Your task to perform on an android device: install app "Speedtest by Ookla" Image 0: 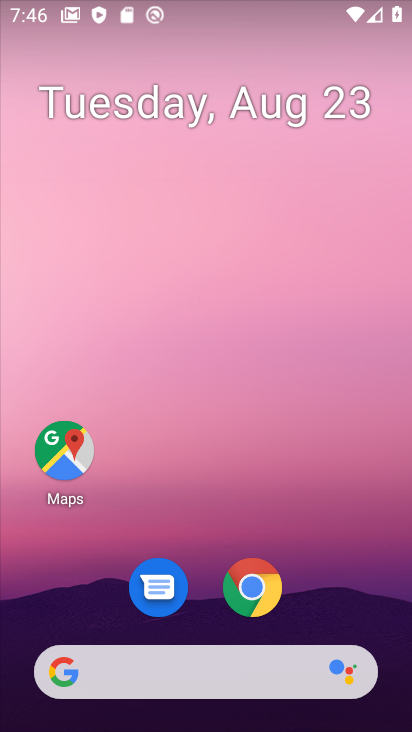
Step 0: drag from (199, 415) to (227, 143)
Your task to perform on an android device: install app "Speedtest by Ookla" Image 1: 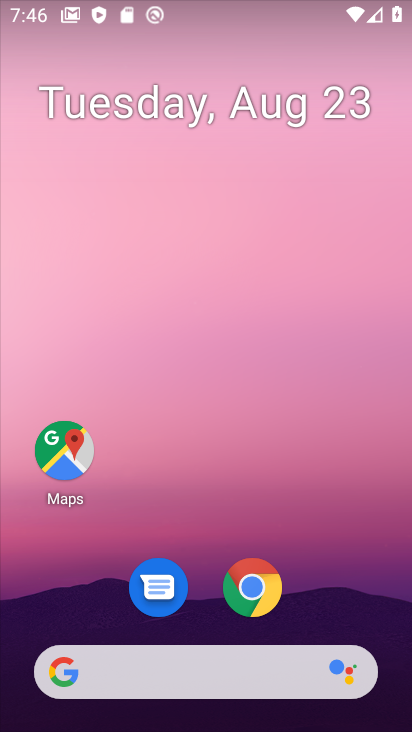
Step 1: drag from (202, 621) to (249, 27)
Your task to perform on an android device: install app "Speedtest by Ookla" Image 2: 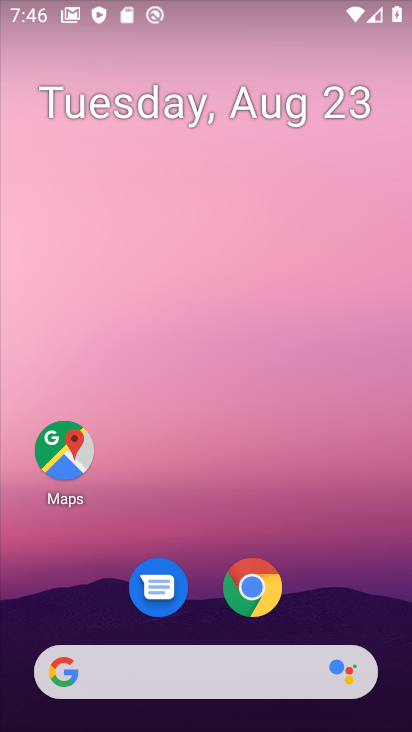
Step 2: drag from (201, 616) to (228, 19)
Your task to perform on an android device: install app "Speedtest by Ookla" Image 3: 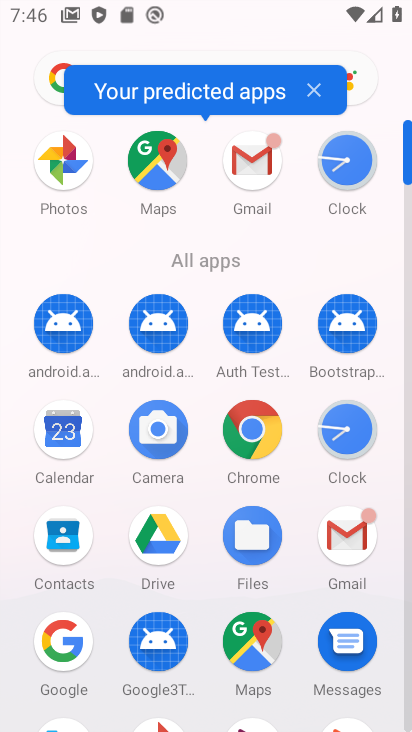
Step 3: click (408, 708)
Your task to perform on an android device: install app "Speedtest by Ookla" Image 4: 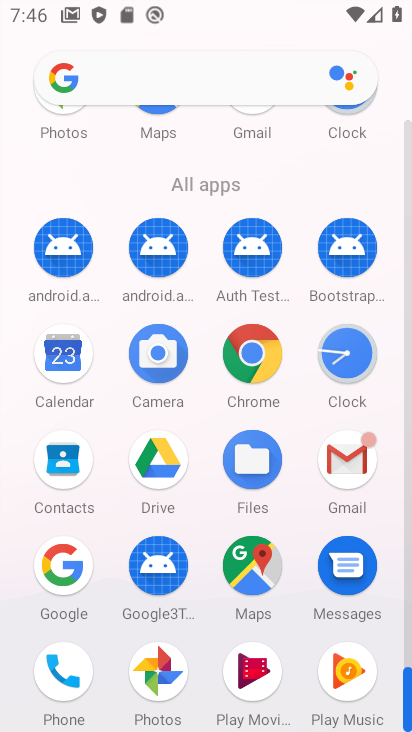
Step 4: drag from (198, 601) to (201, 341)
Your task to perform on an android device: install app "Speedtest by Ookla" Image 5: 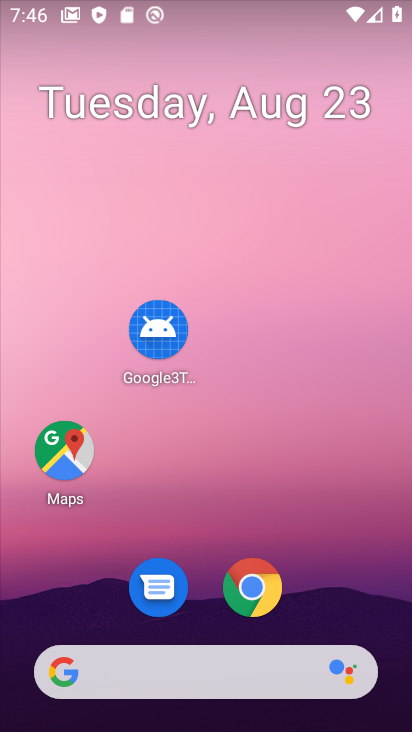
Step 5: drag from (310, 586) to (343, 170)
Your task to perform on an android device: install app "Speedtest by Ookla" Image 6: 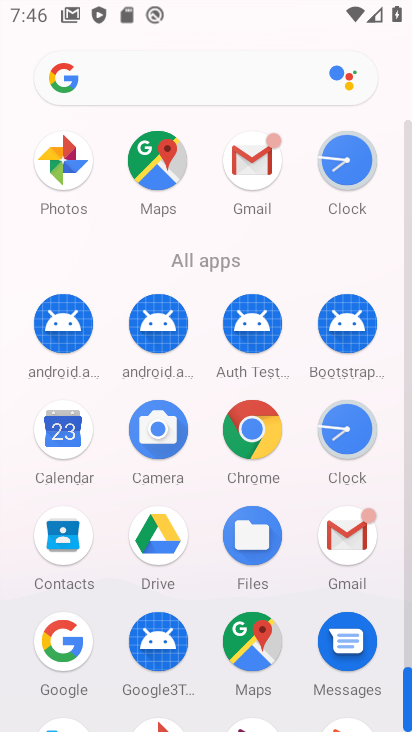
Step 6: click (408, 699)
Your task to perform on an android device: install app "Speedtest by Ookla" Image 7: 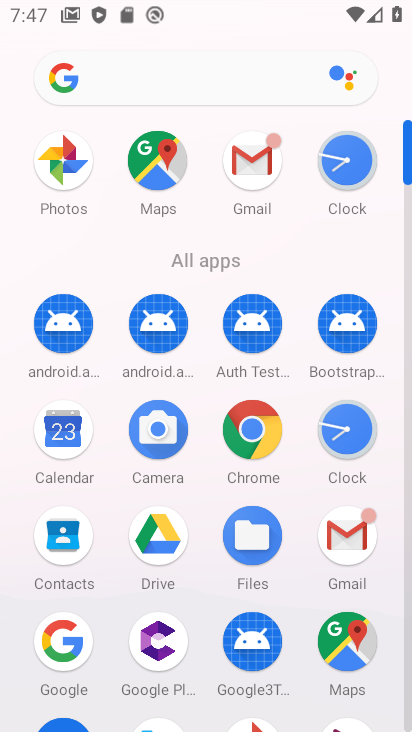
Step 7: drag from (409, 169) to (409, 604)
Your task to perform on an android device: install app "Speedtest by Ookla" Image 8: 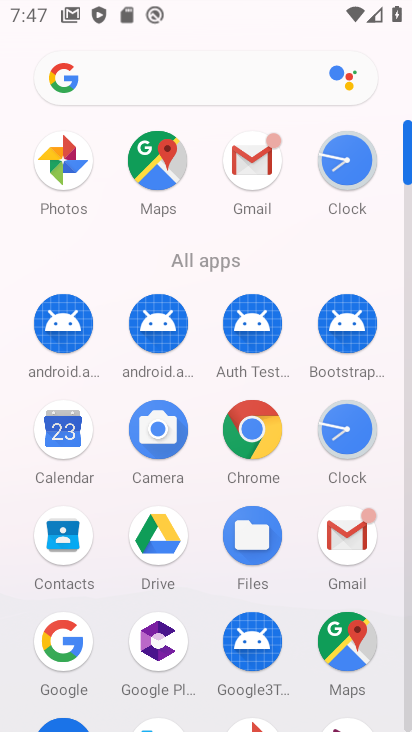
Step 8: drag from (406, 174) to (396, 559)
Your task to perform on an android device: install app "Speedtest by Ookla" Image 9: 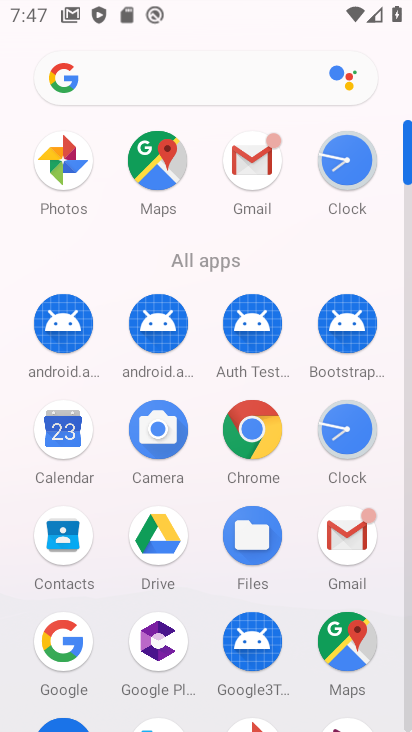
Step 9: drag from (405, 176) to (405, 484)
Your task to perform on an android device: install app "Speedtest by Ookla" Image 10: 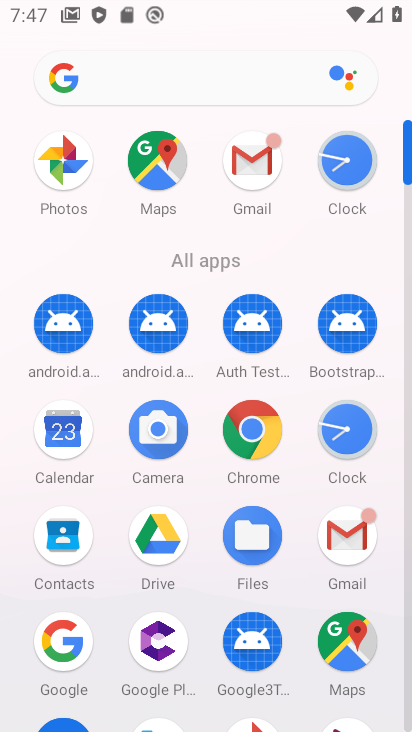
Step 10: click (405, 484)
Your task to perform on an android device: install app "Speedtest by Ookla" Image 11: 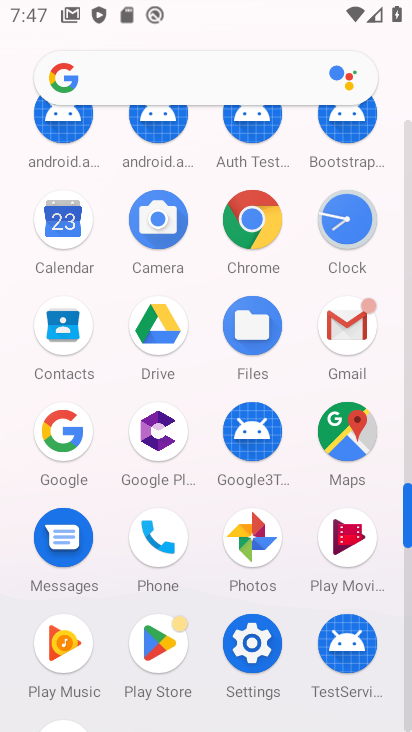
Step 11: click (407, 674)
Your task to perform on an android device: install app "Speedtest by Ookla" Image 12: 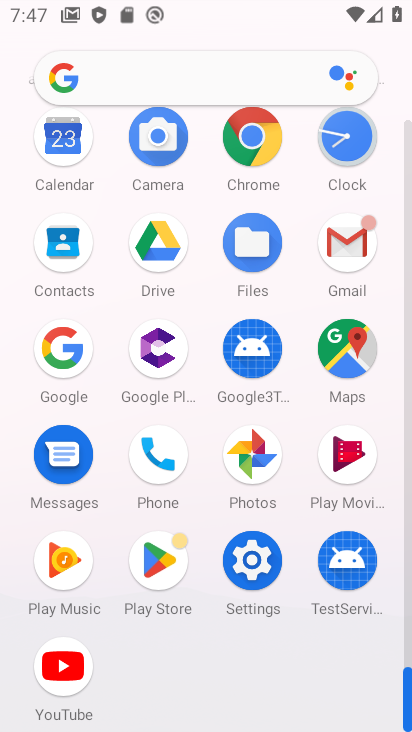
Step 12: click (161, 653)
Your task to perform on an android device: install app "Speedtest by Ookla" Image 13: 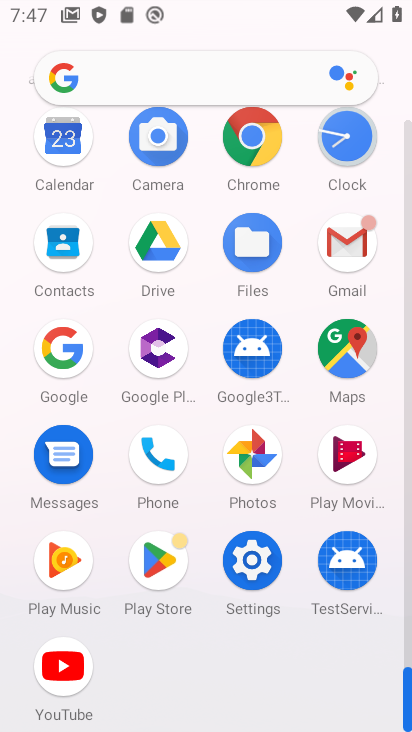
Step 13: click (158, 578)
Your task to perform on an android device: install app "Speedtest by Ookla" Image 14: 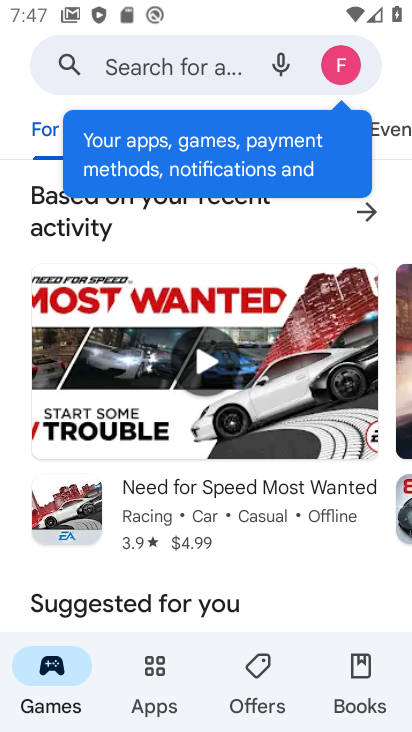
Step 14: click (244, 60)
Your task to perform on an android device: install app "Speedtest by Ookla" Image 15: 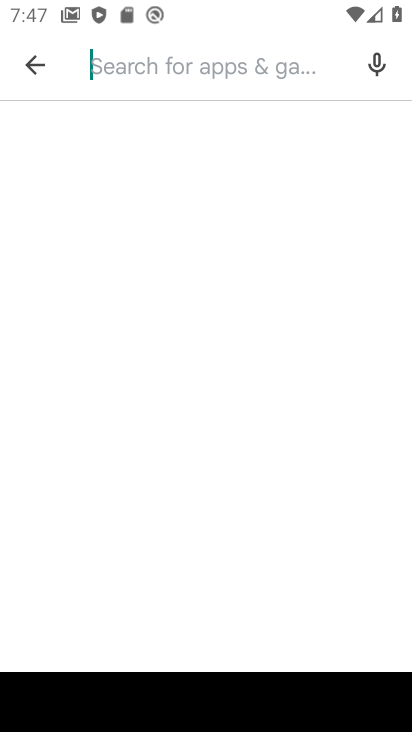
Step 15: type "speed test"
Your task to perform on an android device: install app "Speedtest by Ookla" Image 16: 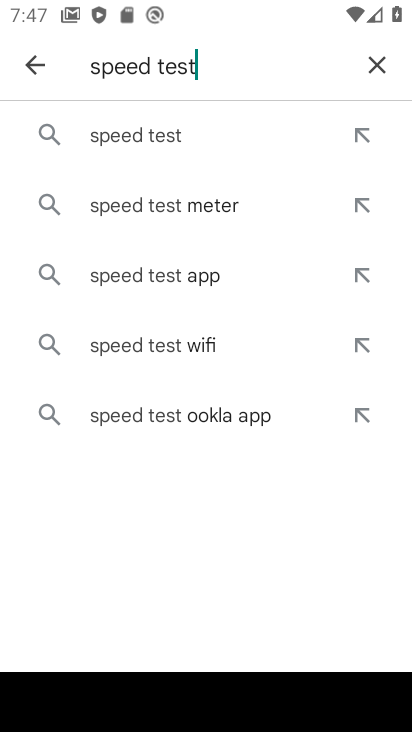
Step 16: click (245, 427)
Your task to perform on an android device: install app "Speedtest by Ookla" Image 17: 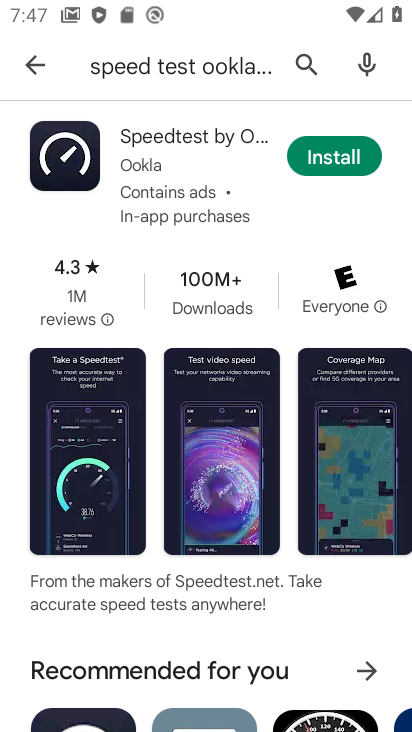
Step 17: click (308, 143)
Your task to perform on an android device: install app "Speedtest by Ookla" Image 18: 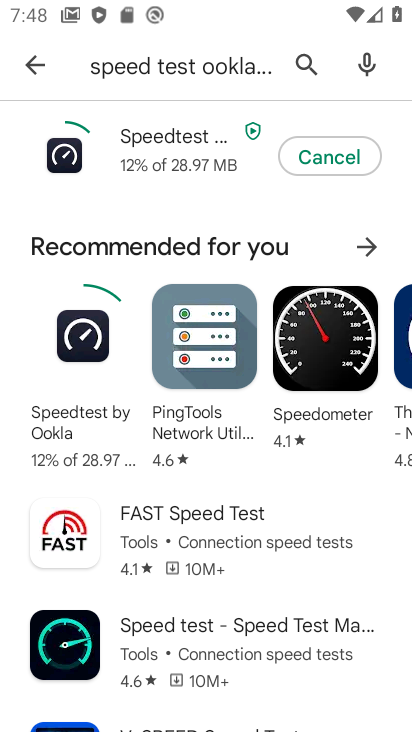
Step 18: task complete